Your task to perform on an android device: Open Android settings Image 0: 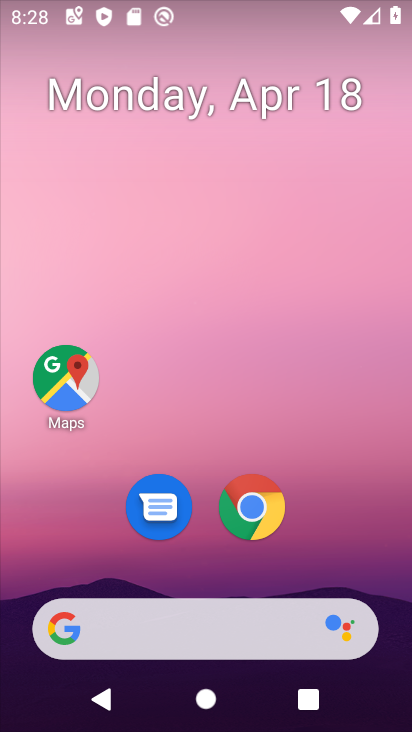
Step 0: drag from (322, 441) to (301, 4)
Your task to perform on an android device: Open Android settings Image 1: 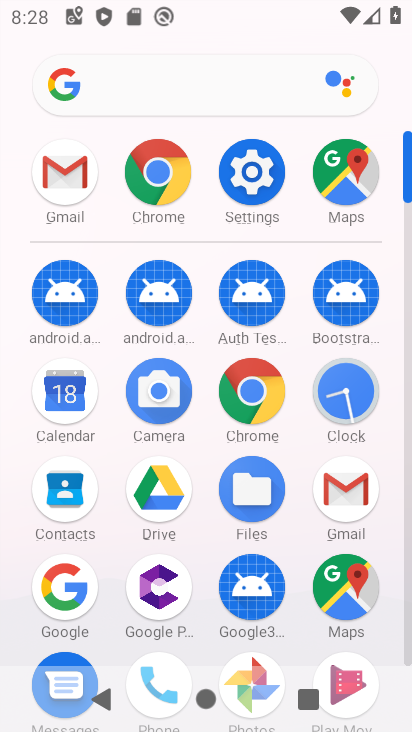
Step 1: click (257, 170)
Your task to perform on an android device: Open Android settings Image 2: 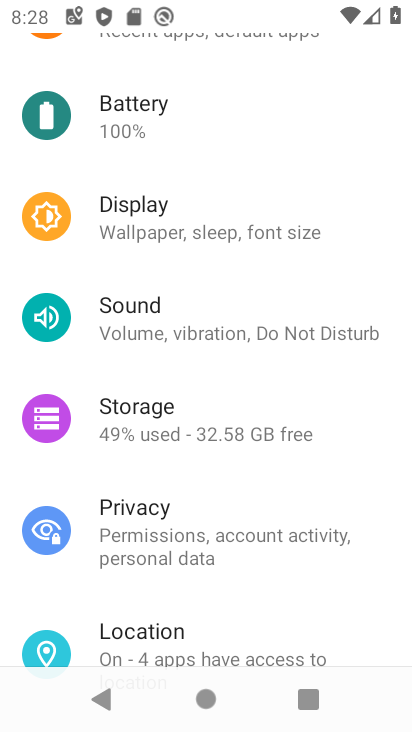
Step 2: drag from (274, 471) to (283, 14)
Your task to perform on an android device: Open Android settings Image 3: 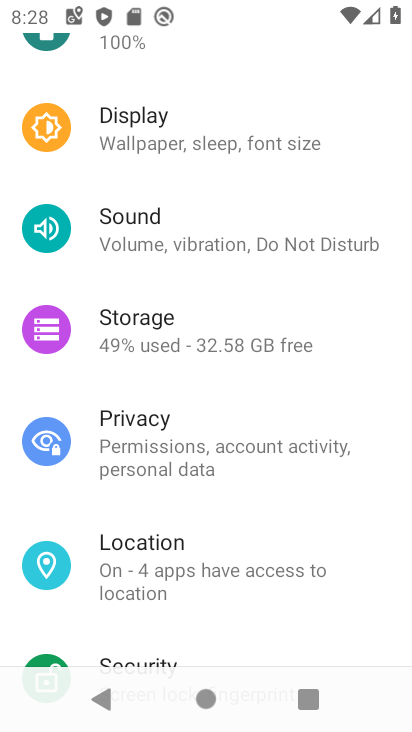
Step 3: drag from (267, 562) to (285, 52)
Your task to perform on an android device: Open Android settings Image 4: 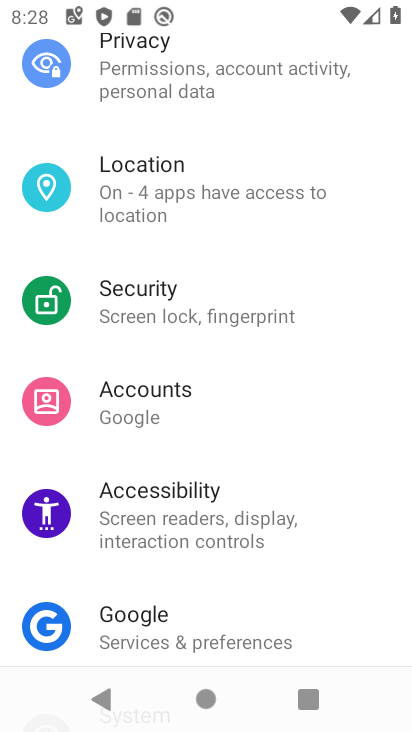
Step 4: drag from (189, 545) to (204, 94)
Your task to perform on an android device: Open Android settings Image 5: 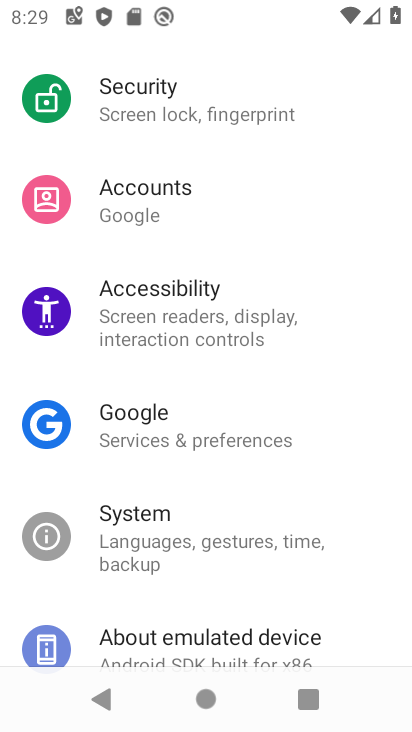
Step 5: click (238, 646)
Your task to perform on an android device: Open Android settings Image 6: 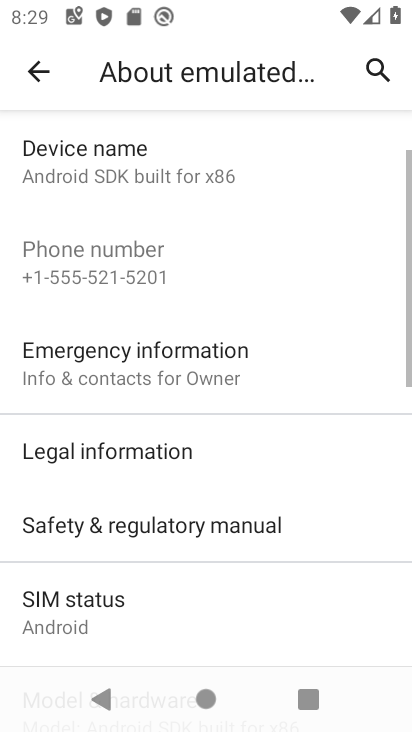
Step 6: drag from (239, 584) to (264, 115)
Your task to perform on an android device: Open Android settings Image 7: 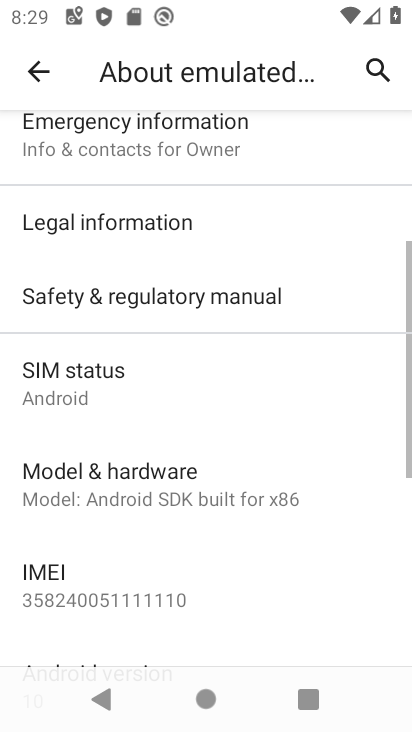
Step 7: drag from (144, 549) to (137, 169)
Your task to perform on an android device: Open Android settings Image 8: 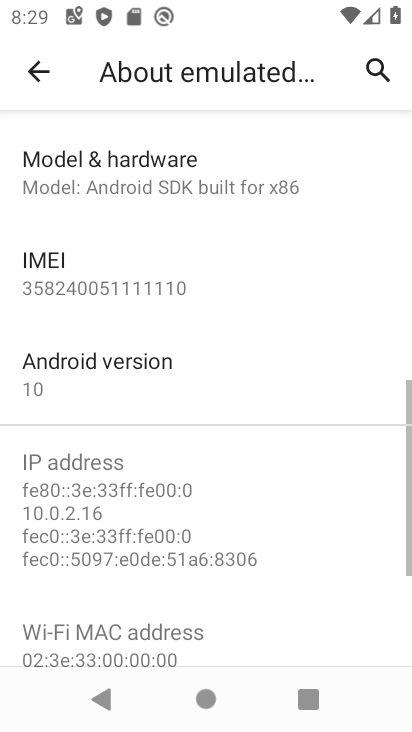
Step 8: click (126, 382)
Your task to perform on an android device: Open Android settings Image 9: 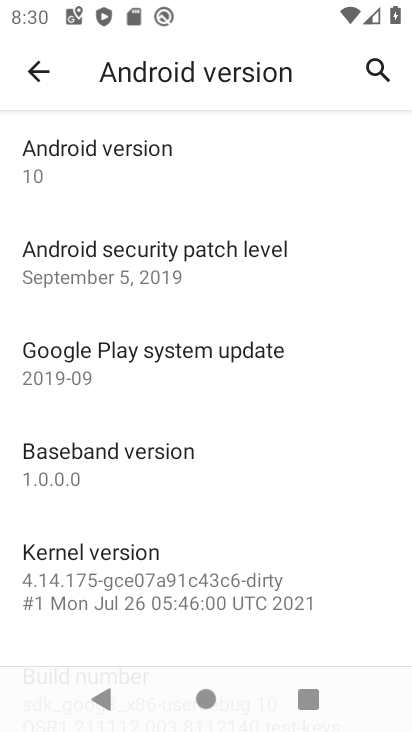
Step 9: click (140, 149)
Your task to perform on an android device: Open Android settings Image 10: 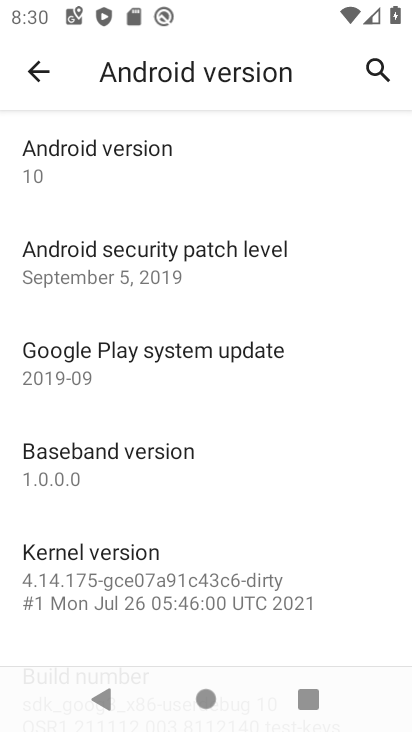
Step 10: task complete